Your task to perform on an android device: turn off smart reply in the gmail app Image 0: 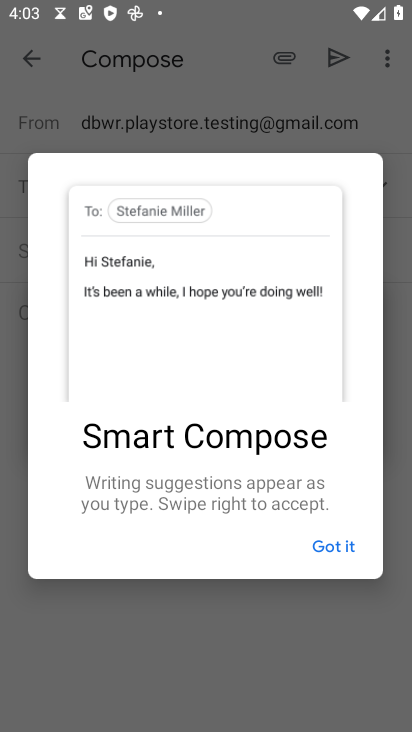
Step 0: press home button
Your task to perform on an android device: turn off smart reply in the gmail app Image 1: 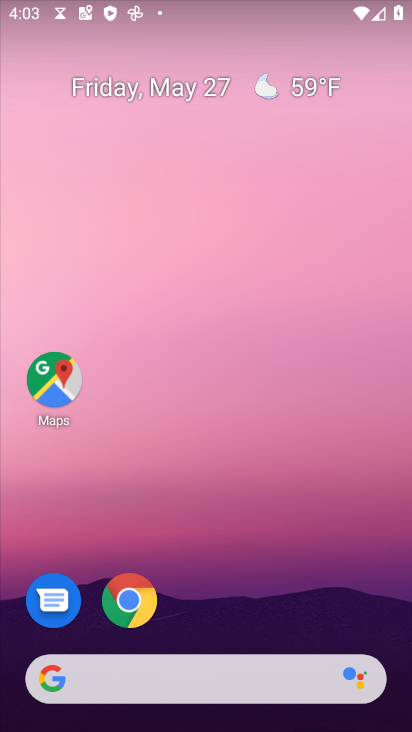
Step 1: drag from (270, 592) to (212, 85)
Your task to perform on an android device: turn off smart reply in the gmail app Image 2: 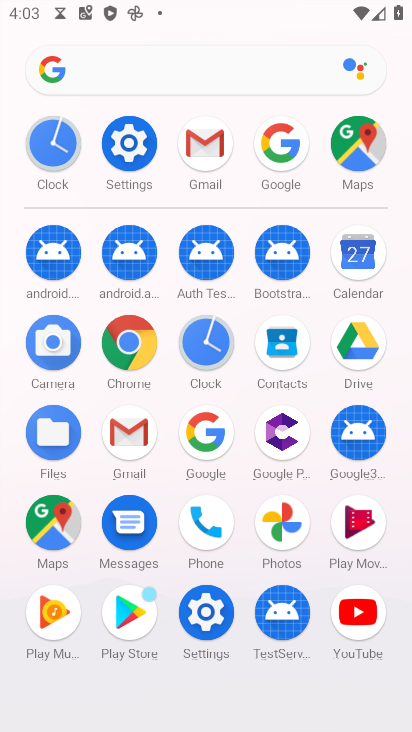
Step 2: click (127, 434)
Your task to perform on an android device: turn off smart reply in the gmail app Image 3: 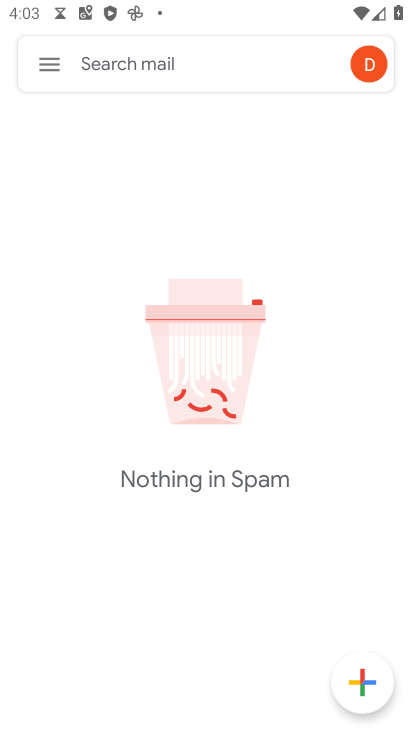
Step 3: click (45, 61)
Your task to perform on an android device: turn off smart reply in the gmail app Image 4: 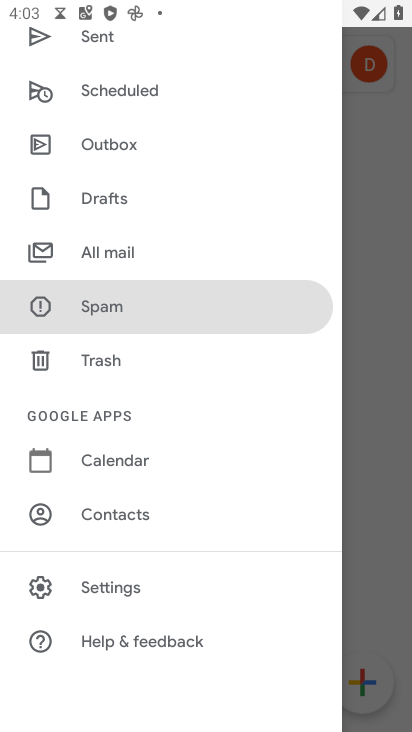
Step 4: click (105, 583)
Your task to perform on an android device: turn off smart reply in the gmail app Image 5: 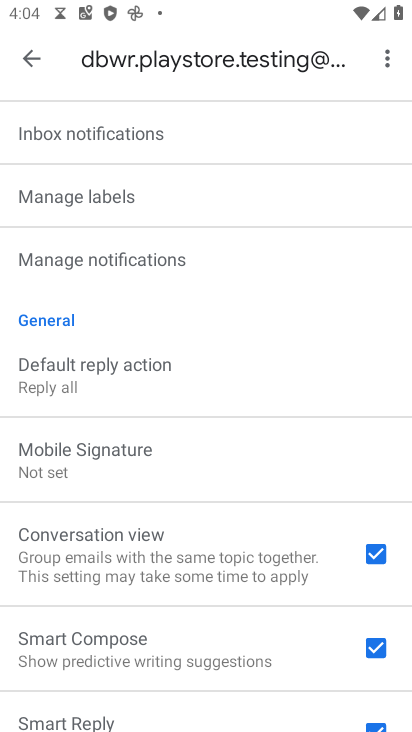
Step 5: drag from (111, 482) to (140, 397)
Your task to perform on an android device: turn off smart reply in the gmail app Image 6: 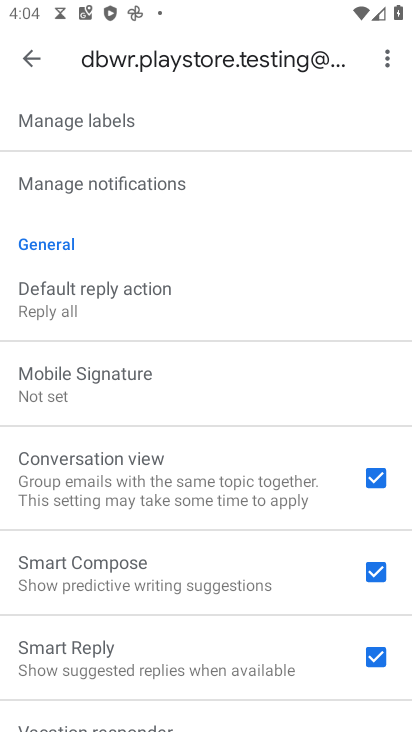
Step 6: drag from (112, 624) to (179, 536)
Your task to perform on an android device: turn off smart reply in the gmail app Image 7: 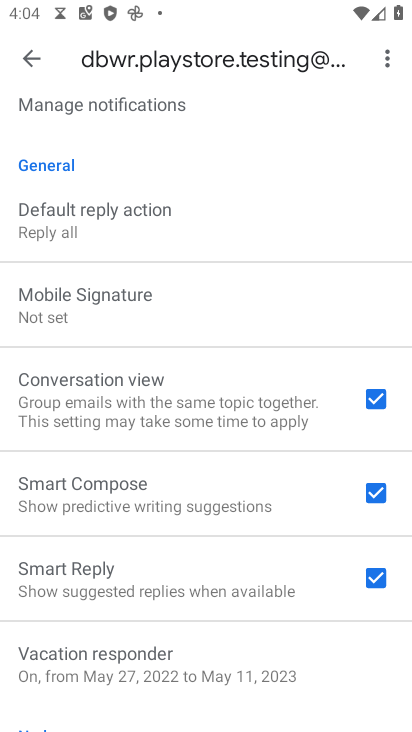
Step 7: click (374, 579)
Your task to perform on an android device: turn off smart reply in the gmail app Image 8: 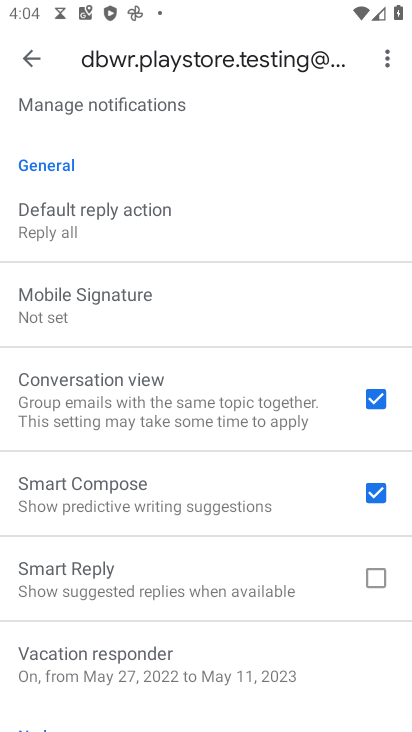
Step 8: task complete